Your task to perform on an android device: turn off sleep mode Image 0: 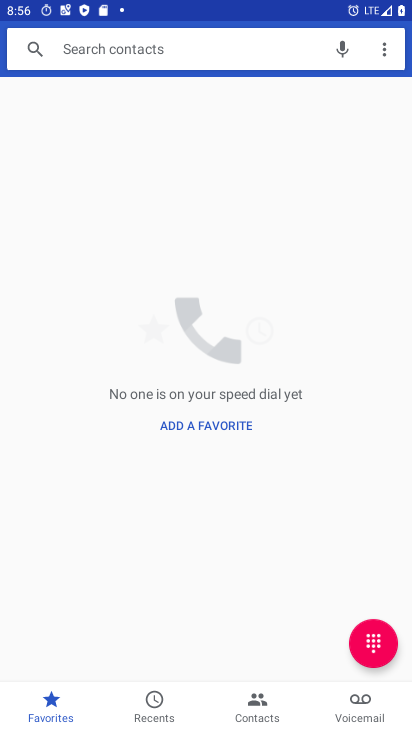
Step 0: press home button
Your task to perform on an android device: turn off sleep mode Image 1: 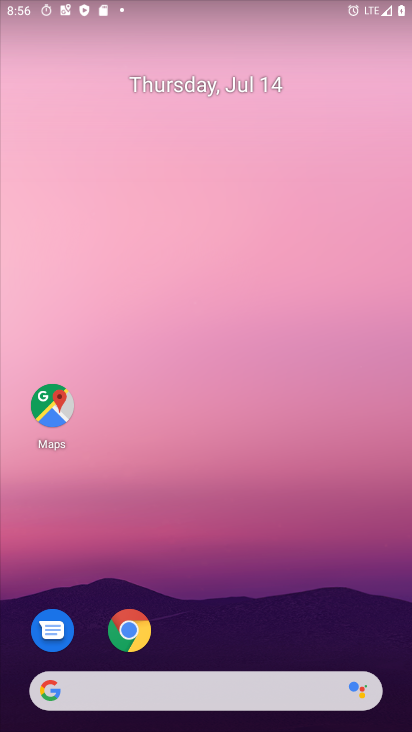
Step 1: drag from (202, 641) to (230, 298)
Your task to perform on an android device: turn off sleep mode Image 2: 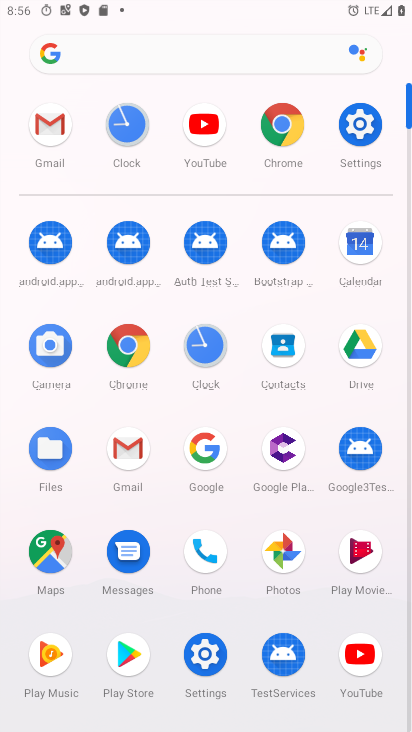
Step 2: click (357, 124)
Your task to perform on an android device: turn off sleep mode Image 3: 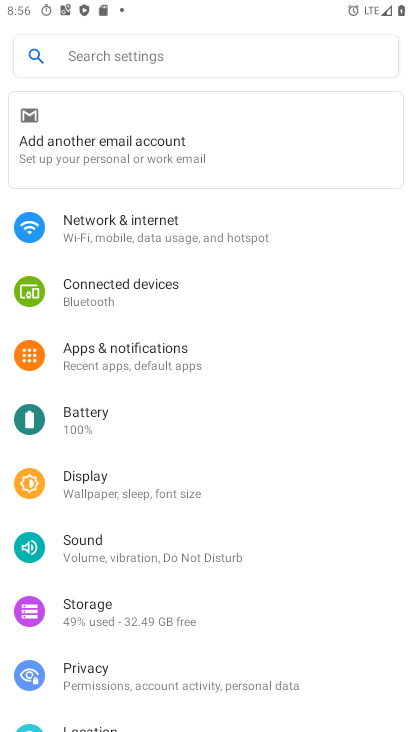
Step 3: click (131, 228)
Your task to perform on an android device: turn off sleep mode Image 4: 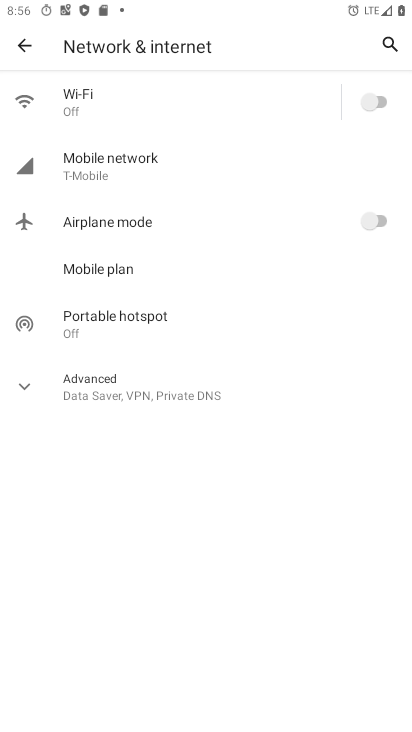
Step 4: click (26, 44)
Your task to perform on an android device: turn off sleep mode Image 5: 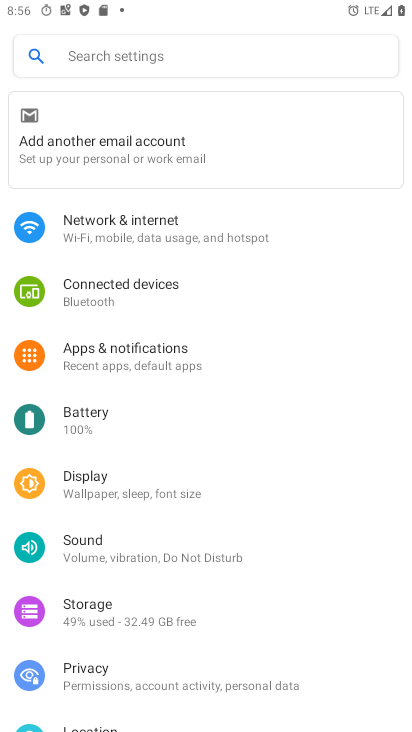
Step 5: click (128, 489)
Your task to perform on an android device: turn off sleep mode Image 6: 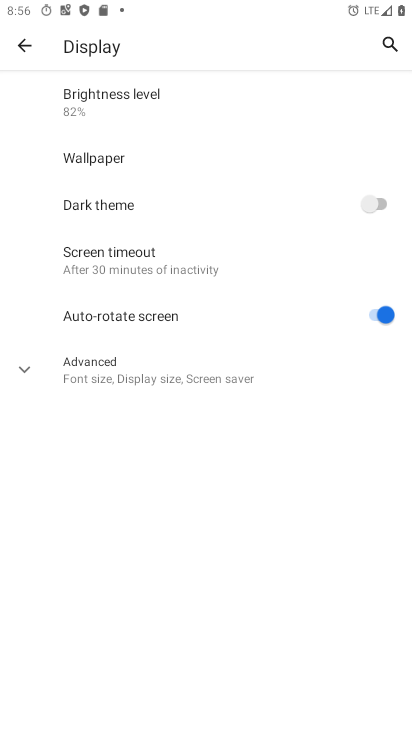
Step 6: task complete